Your task to perform on an android device: Open Reddit.com Image 0: 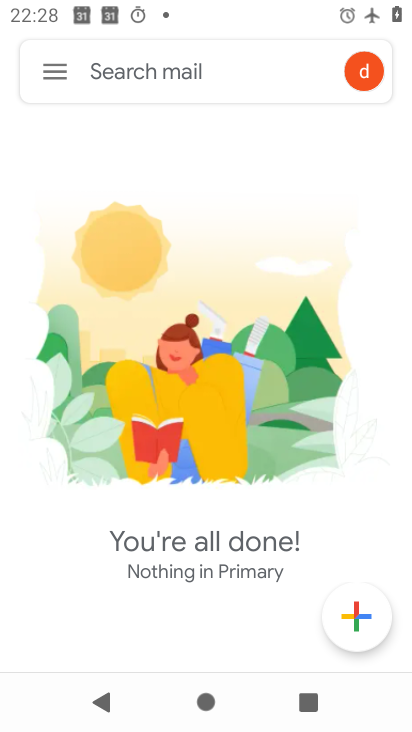
Step 0: press home button
Your task to perform on an android device: Open Reddit.com Image 1: 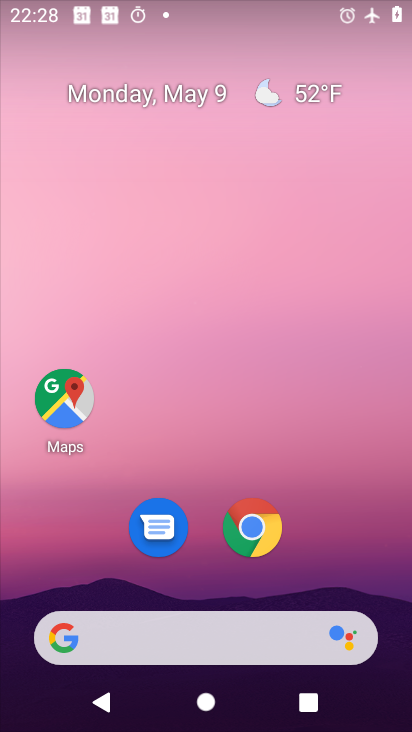
Step 1: drag from (207, 576) to (178, 105)
Your task to perform on an android device: Open Reddit.com Image 2: 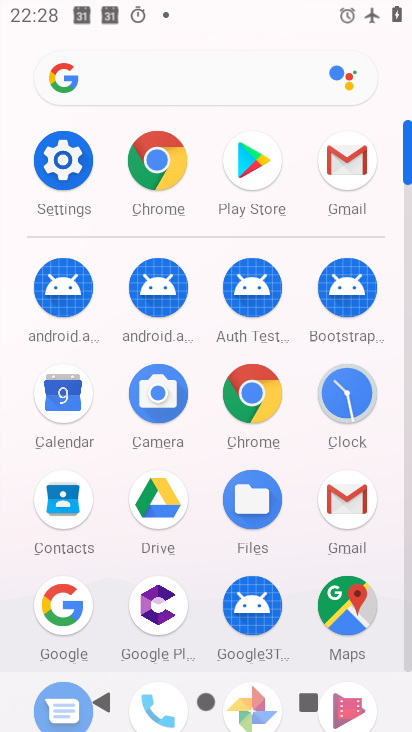
Step 2: click (66, 605)
Your task to perform on an android device: Open Reddit.com Image 3: 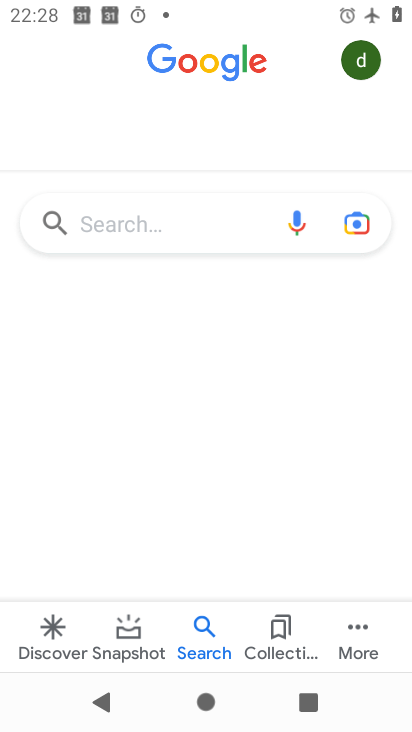
Step 3: click (140, 225)
Your task to perform on an android device: Open Reddit.com Image 4: 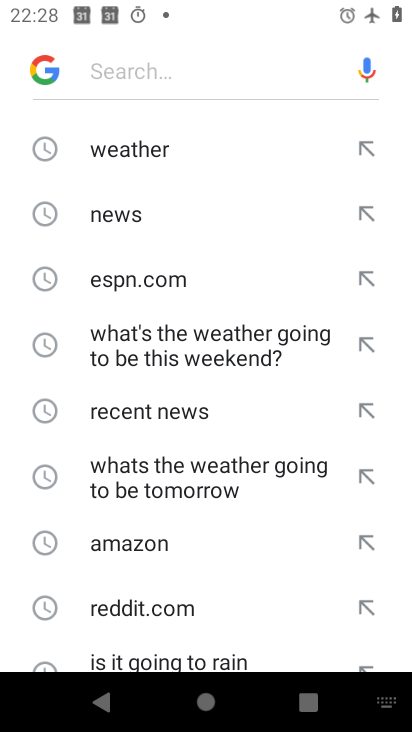
Step 4: click (154, 604)
Your task to perform on an android device: Open Reddit.com Image 5: 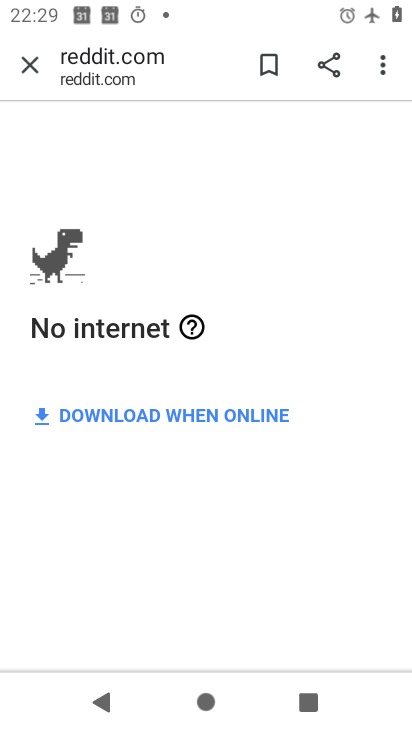
Step 5: task complete